Your task to perform on an android device: Is it going to rain tomorrow? Image 0: 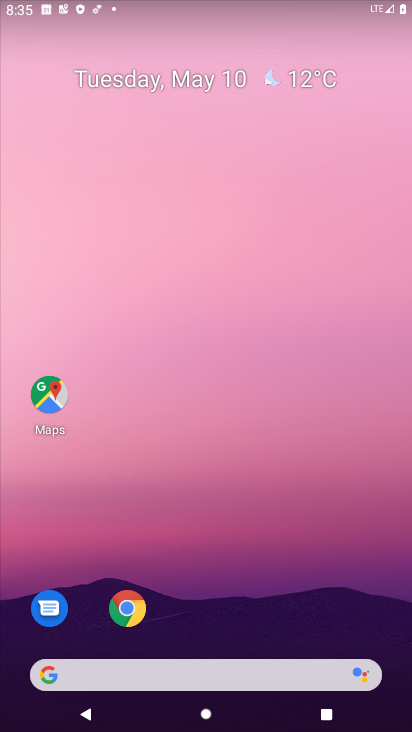
Step 0: click (297, 79)
Your task to perform on an android device: Is it going to rain tomorrow? Image 1: 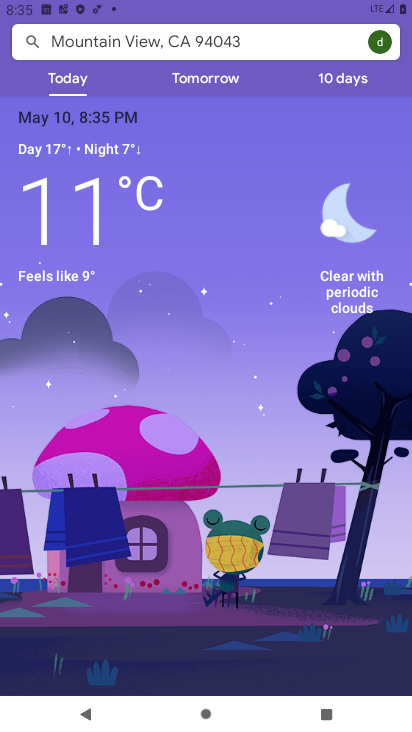
Step 1: click (194, 82)
Your task to perform on an android device: Is it going to rain tomorrow? Image 2: 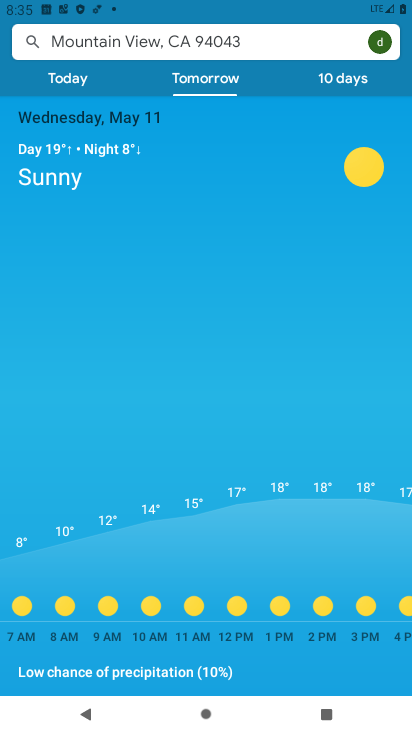
Step 2: task complete